Your task to perform on an android device: Open calendar and show me the second week of next month Image 0: 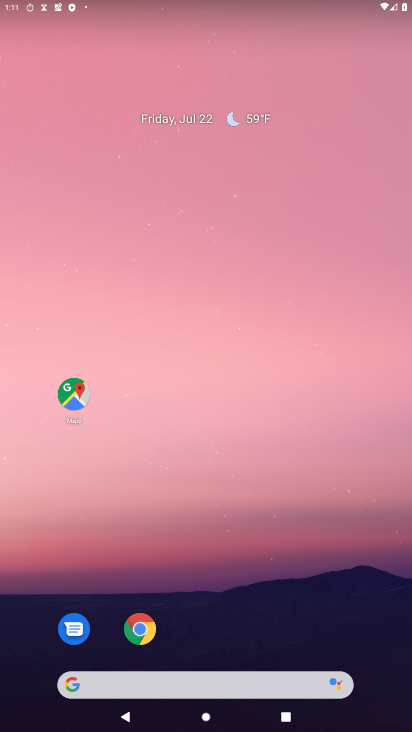
Step 0: drag from (207, 622) to (257, 197)
Your task to perform on an android device: Open calendar and show me the second week of next month Image 1: 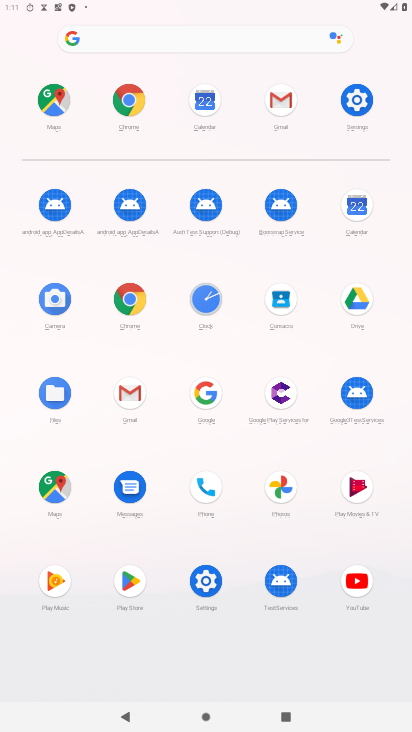
Step 1: click (360, 212)
Your task to perform on an android device: Open calendar and show me the second week of next month Image 2: 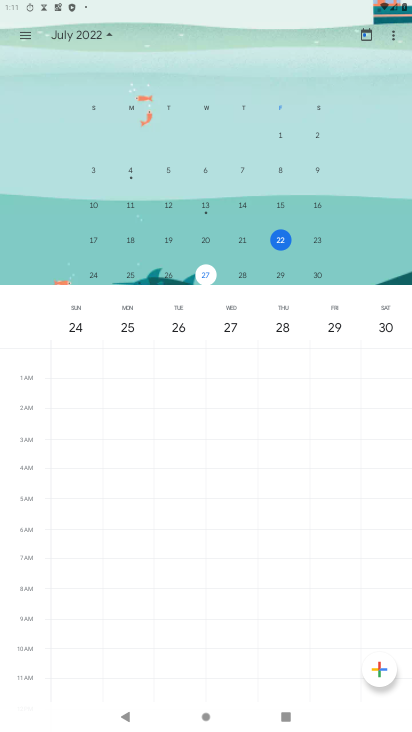
Step 2: drag from (316, 179) to (0, 221)
Your task to perform on an android device: Open calendar and show me the second week of next month Image 3: 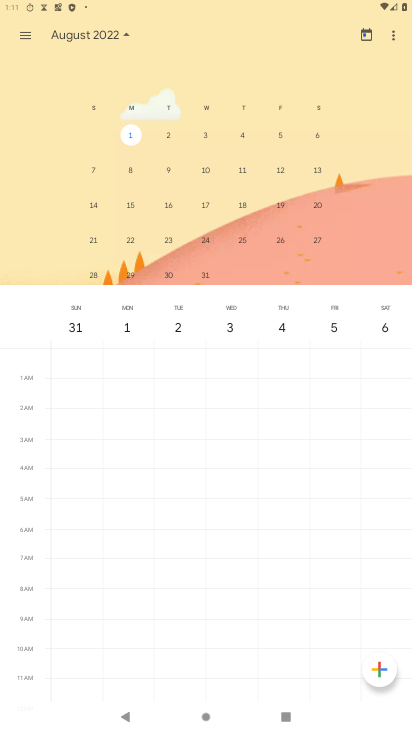
Step 3: click (201, 174)
Your task to perform on an android device: Open calendar and show me the second week of next month Image 4: 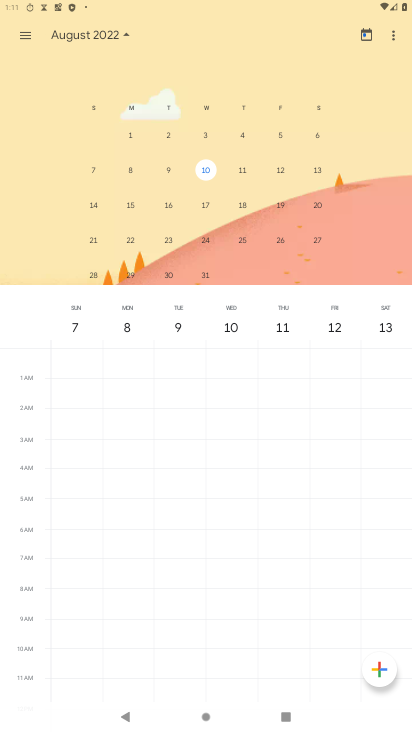
Step 4: task complete